Your task to perform on an android device: allow notifications from all sites in the chrome app Image 0: 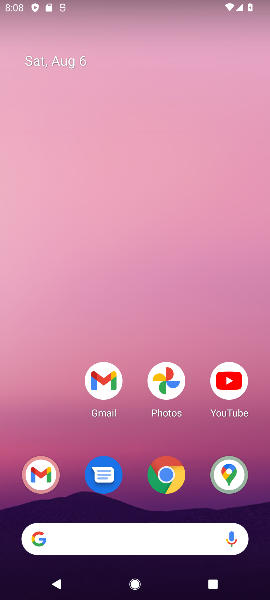
Step 0: click (163, 463)
Your task to perform on an android device: allow notifications from all sites in the chrome app Image 1: 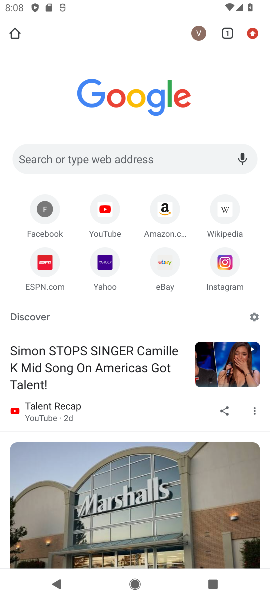
Step 1: click (253, 41)
Your task to perform on an android device: allow notifications from all sites in the chrome app Image 2: 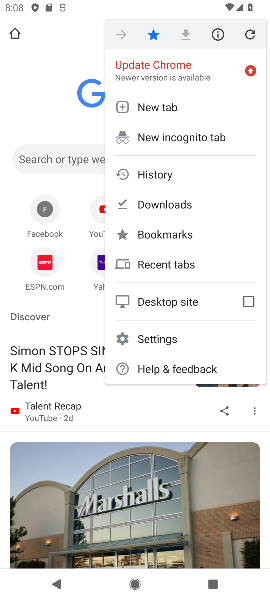
Step 2: click (175, 325)
Your task to perform on an android device: allow notifications from all sites in the chrome app Image 3: 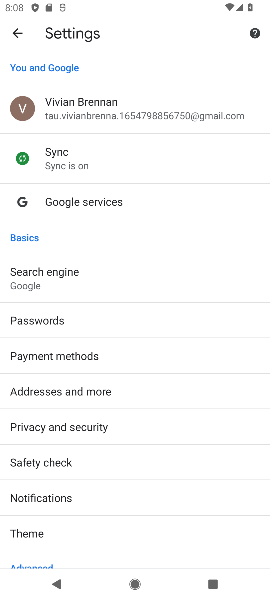
Step 3: drag from (113, 487) to (128, 333)
Your task to perform on an android device: allow notifications from all sites in the chrome app Image 4: 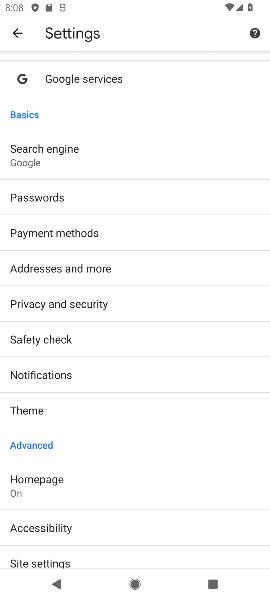
Step 4: click (107, 358)
Your task to perform on an android device: allow notifications from all sites in the chrome app Image 5: 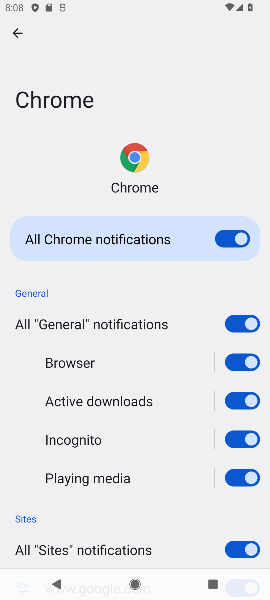
Step 5: press back button
Your task to perform on an android device: allow notifications from all sites in the chrome app Image 6: 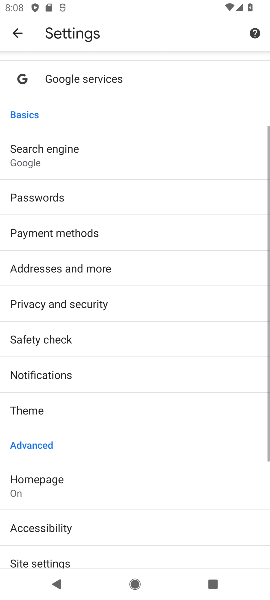
Step 6: drag from (163, 455) to (165, 344)
Your task to perform on an android device: allow notifications from all sites in the chrome app Image 7: 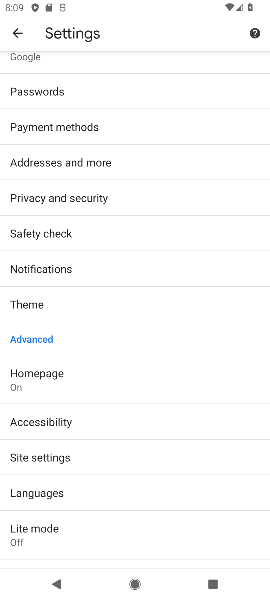
Step 7: click (38, 450)
Your task to perform on an android device: allow notifications from all sites in the chrome app Image 8: 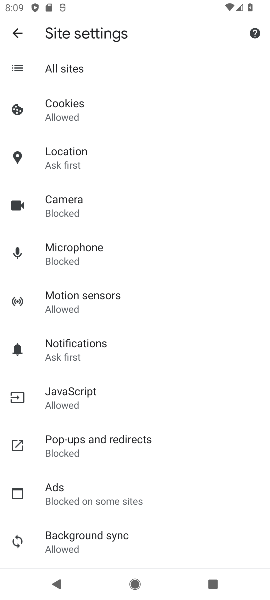
Step 8: click (50, 68)
Your task to perform on an android device: allow notifications from all sites in the chrome app Image 9: 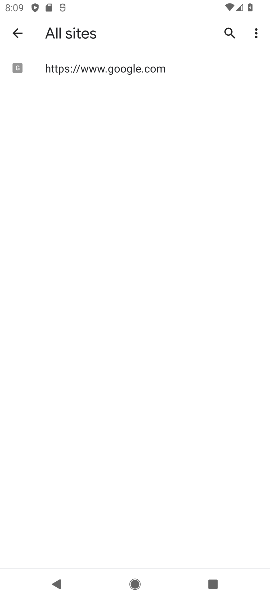
Step 9: click (87, 73)
Your task to perform on an android device: allow notifications from all sites in the chrome app Image 10: 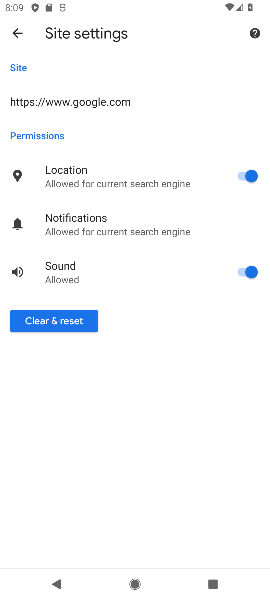
Step 10: click (218, 240)
Your task to perform on an android device: allow notifications from all sites in the chrome app Image 11: 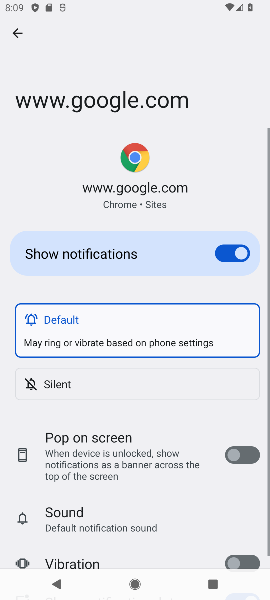
Step 11: task complete